Your task to perform on an android device: Is it going to rain tomorrow? Image 0: 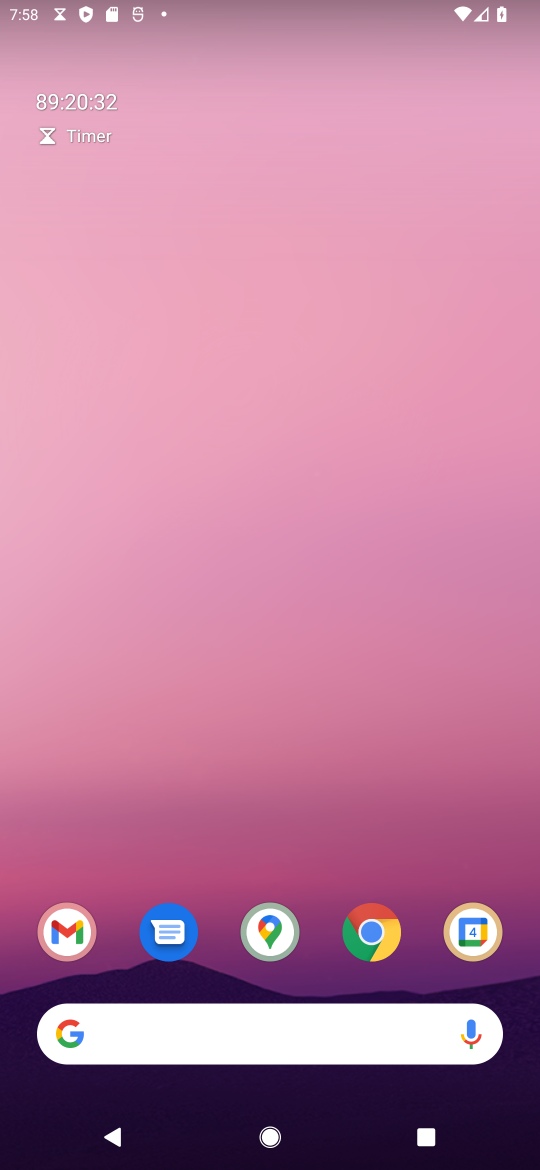
Step 0: click (255, 1025)
Your task to perform on an android device: Is it going to rain tomorrow? Image 1: 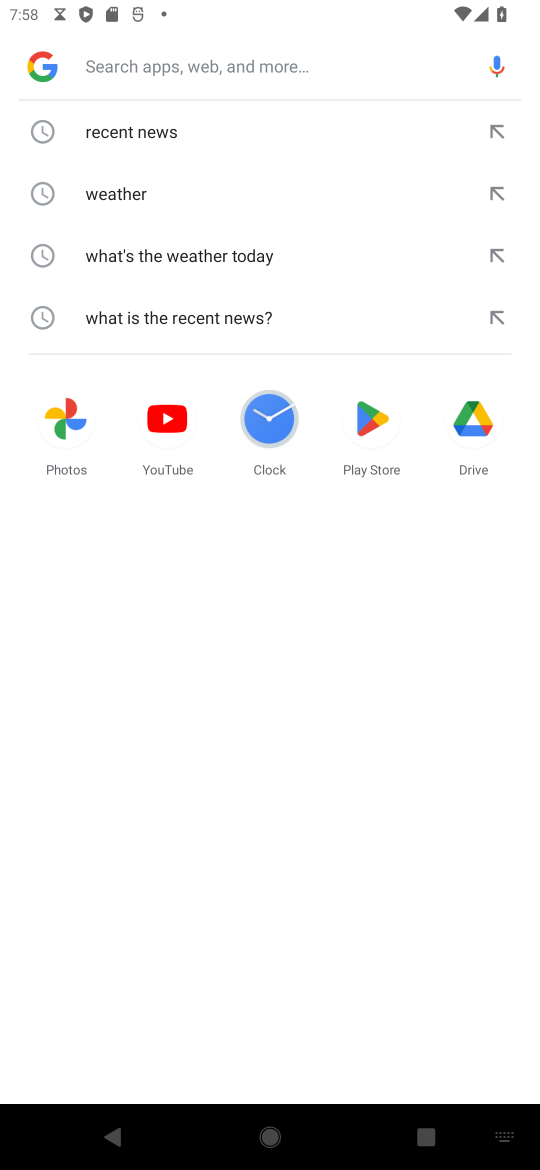
Step 1: type "is it going to rain tomorrow"
Your task to perform on an android device: Is it going to rain tomorrow? Image 2: 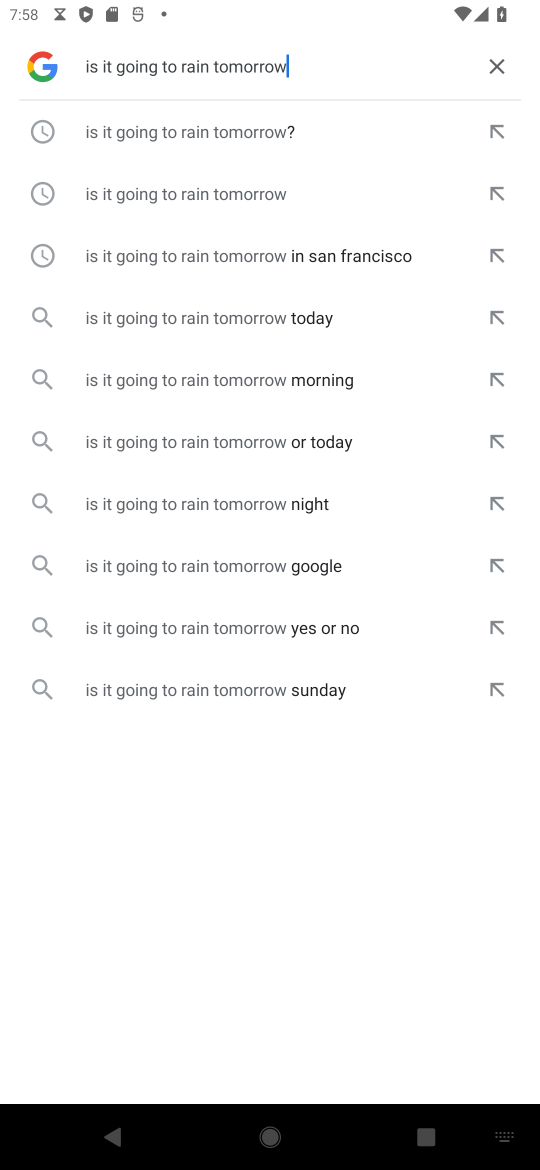
Step 2: click (431, 131)
Your task to perform on an android device: Is it going to rain tomorrow? Image 3: 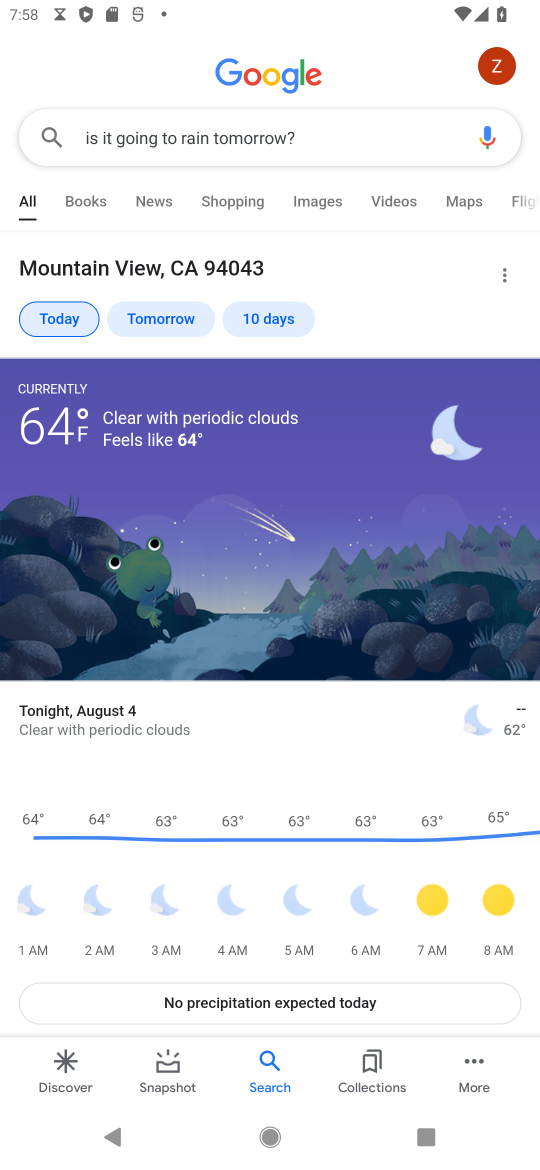
Step 3: click (159, 327)
Your task to perform on an android device: Is it going to rain tomorrow? Image 4: 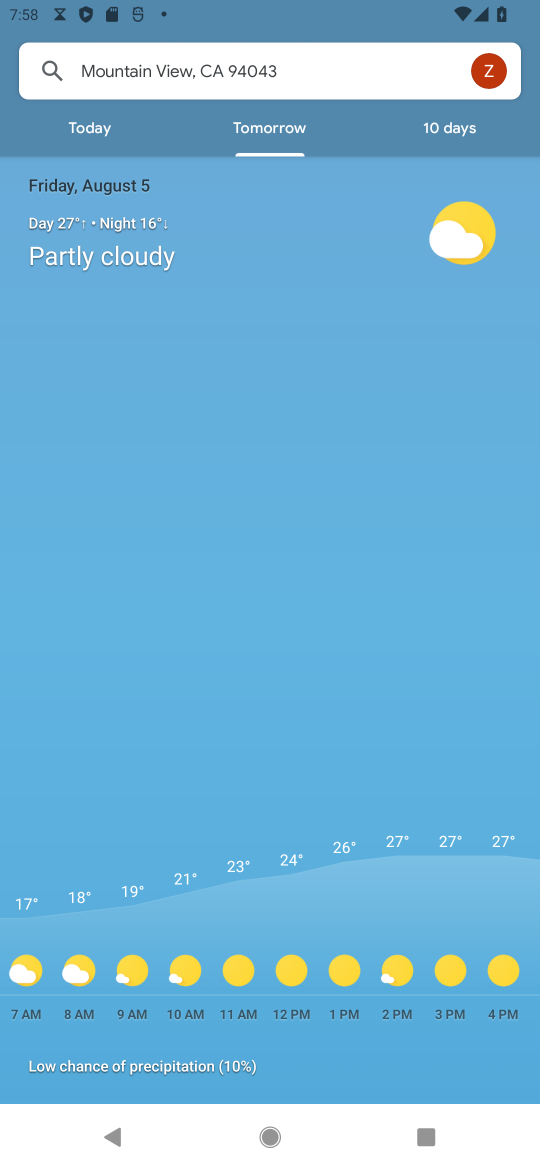
Step 4: task complete